Your task to perform on an android device: Go to Yahoo.com Image 0: 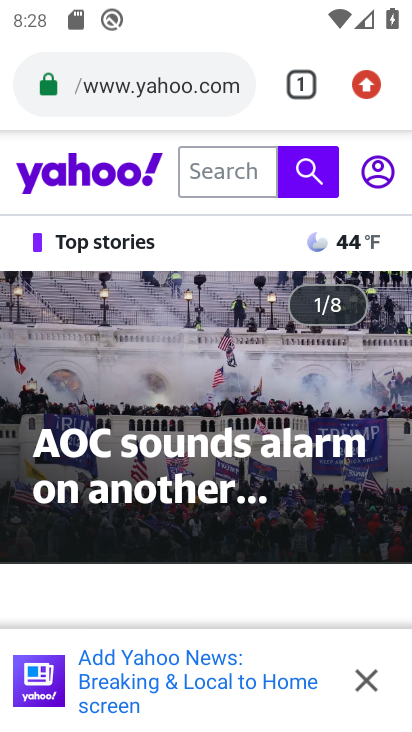
Step 0: drag from (284, 611) to (305, 326)
Your task to perform on an android device: Go to Yahoo.com Image 1: 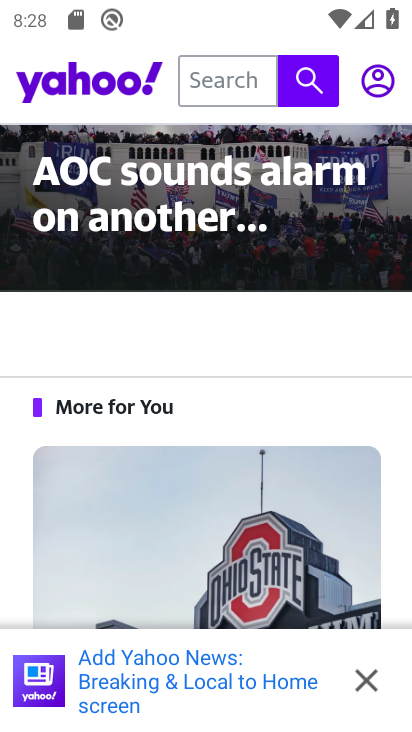
Step 1: task complete